Your task to perform on an android device: Open the calendar and show me this week's events? Image 0: 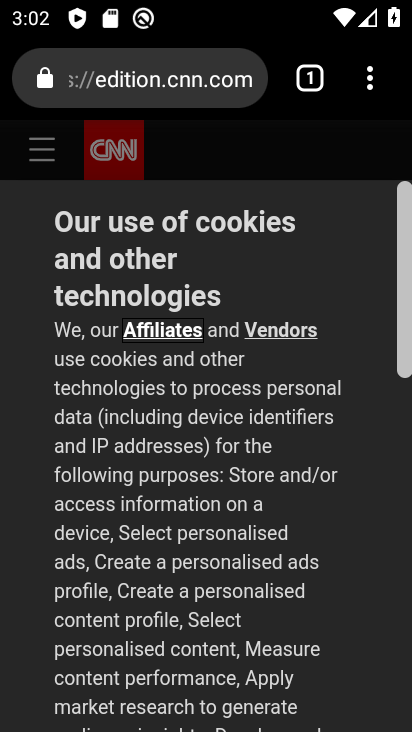
Step 0: press back button
Your task to perform on an android device: Open the calendar and show me this week's events? Image 1: 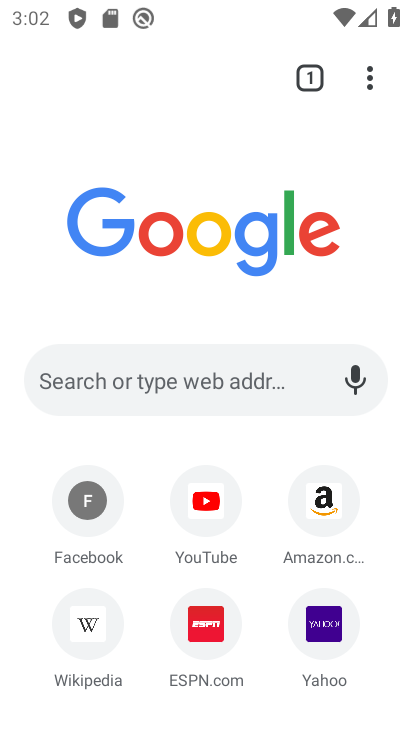
Step 1: press back button
Your task to perform on an android device: Open the calendar and show me this week's events? Image 2: 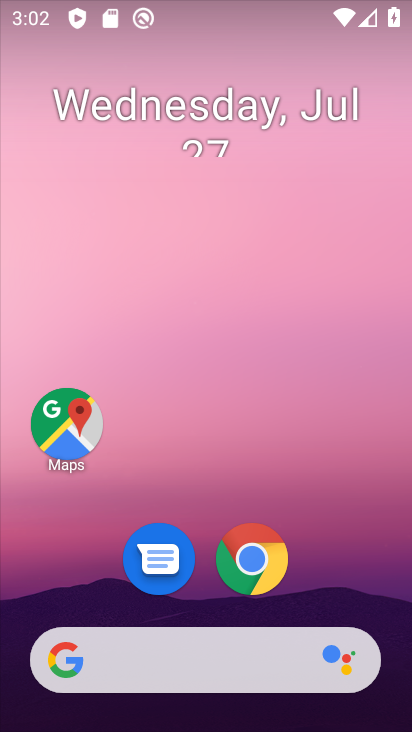
Step 2: drag from (61, 586) to (233, 18)
Your task to perform on an android device: Open the calendar and show me this week's events? Image 3: 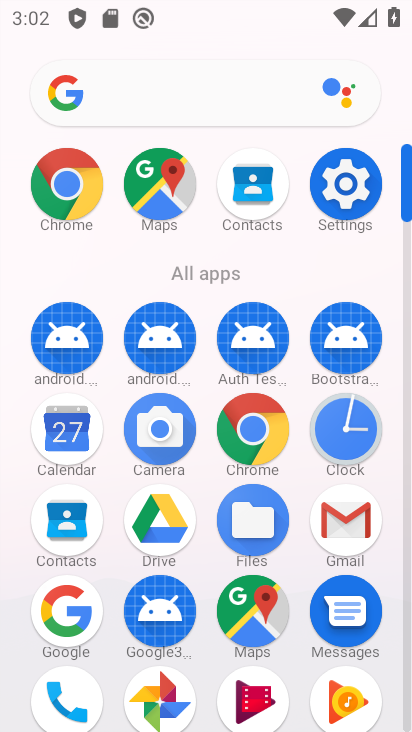
Step 3: click (69, 446)
Your task to perform on an android device: Open the calendar and show me this week's events? Image 4: 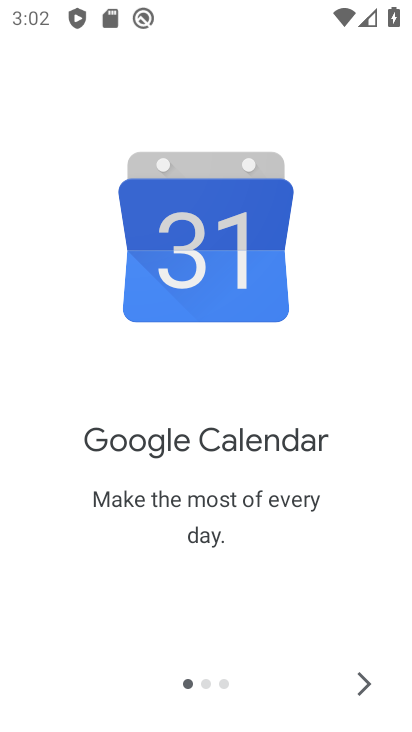
Step 4: click (361, 682)
Your task to perform on an android device: Open the calendar and show me this week's events? Image 5: 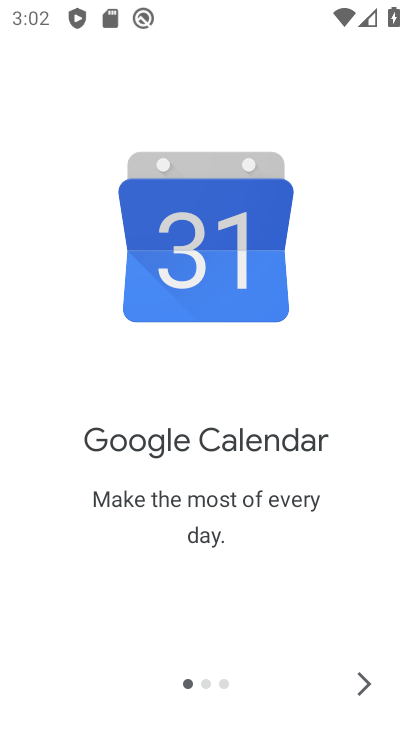
Step 5: click (361, 682)
Your task to perform on an android device: Open the calendar and show me this week's events? Image 6: 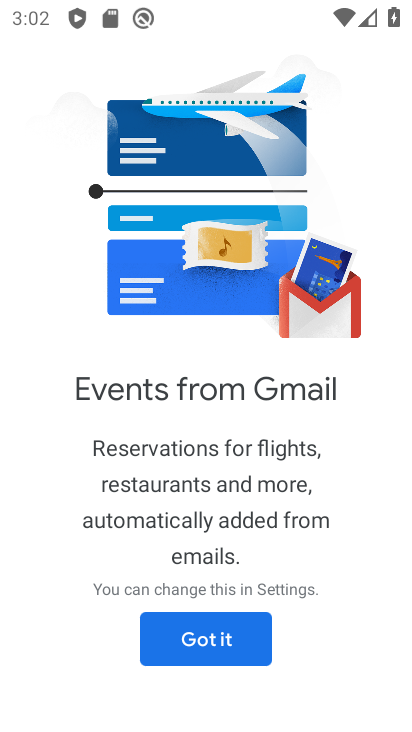
Step 6: click (191, 642)
Your task to perform on an android device: Open the calendar and show me this week's events? Image 7: 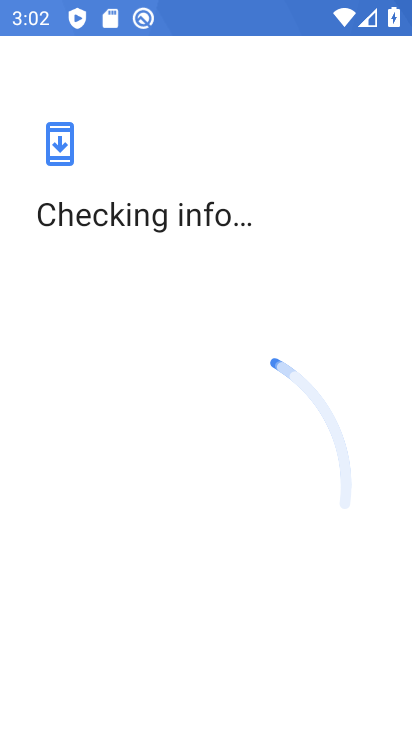
Step 7: click (156, 71)
Your task to perform on an android device: Open the calendar and show me this week's events? Image 8: 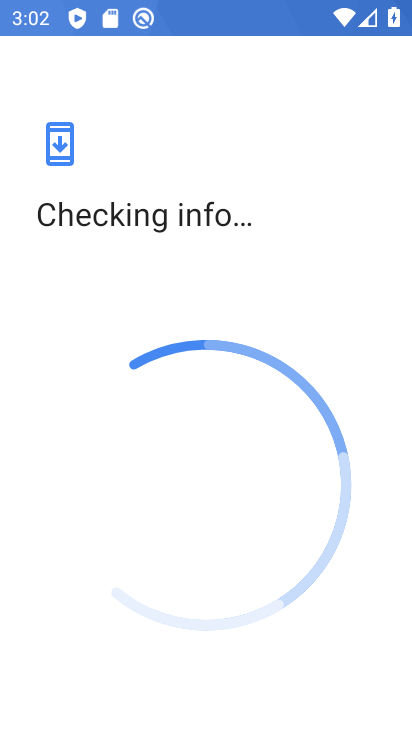
Step 8: press back button
Your task to perform on an android device: Open the calendar and show me this week's events? Image 9: 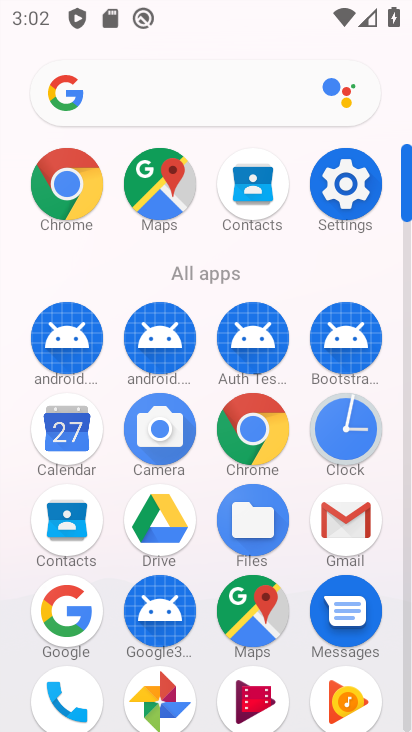
Step 9: click (71, 442)
Your task to perform on an android device: Open the calendar and show me this week's events? Image 10: 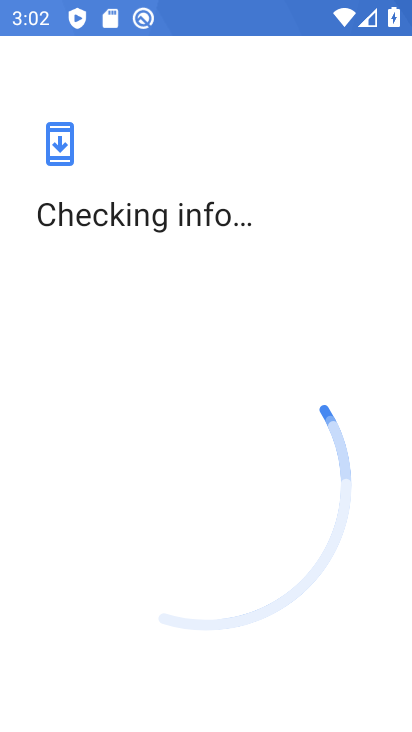
Step 10: press back button
Your task to perform on an android device: Open the calendar and show me this week's events? Image 11: 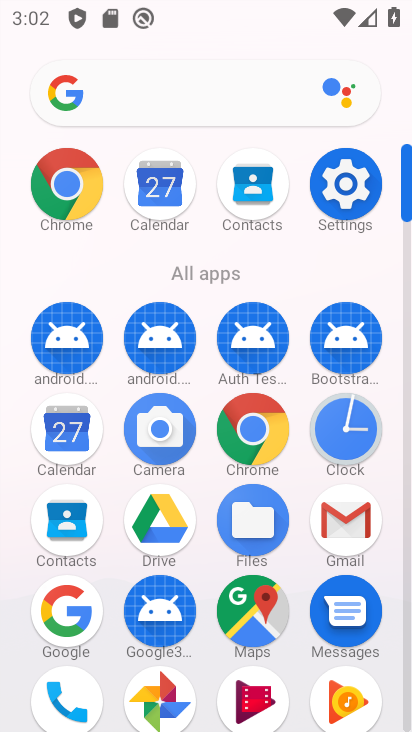
Step 11: click (150, 185)
Your task to perform on an android device: Open the calendar and show me this week's events? Image 12: 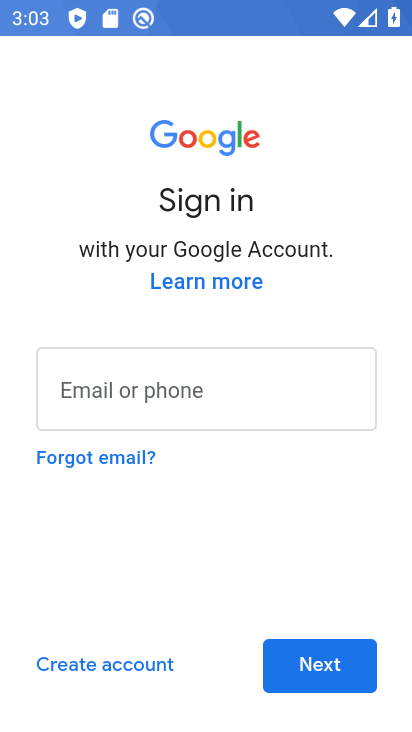
Step 12: press back button
Your task to perform on an android device: Open the calendar and show me this week's events? Image 13: 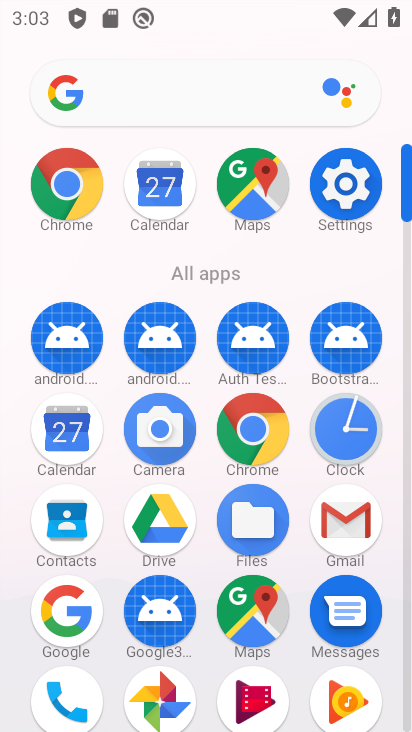
Step 13: click (165, 180)
Your task to perform on an android device: Open the calendar and show me this week's events? Image 14: 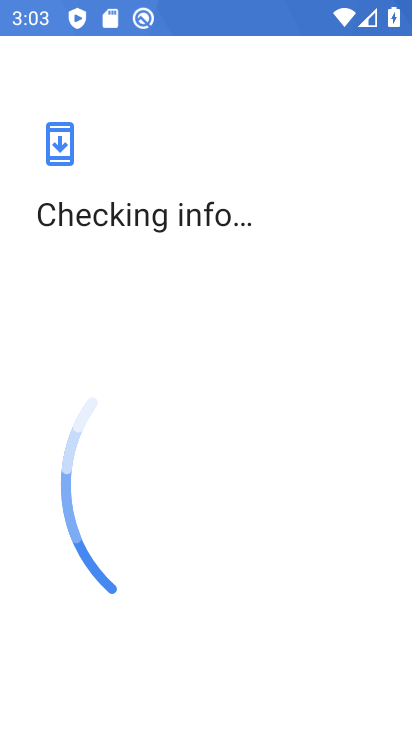
Step 14: press back button
Your task to perform on an android device: Open the calendar and show me this week's events? Image 15: 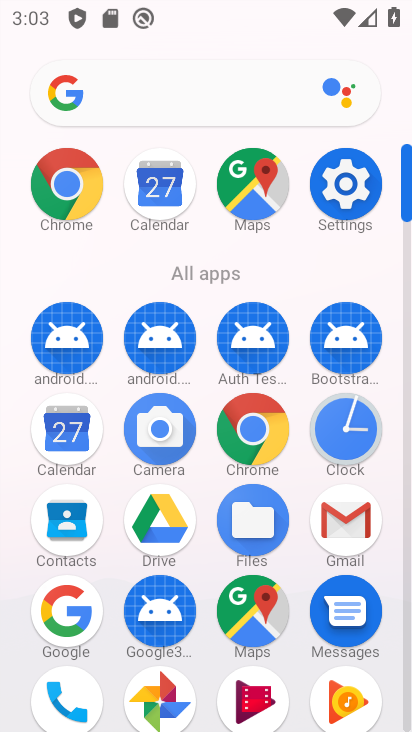
Step 15: click (156, 184)
Your task to perform on an android device: Open the calendar and show me this week's events? Image 16: 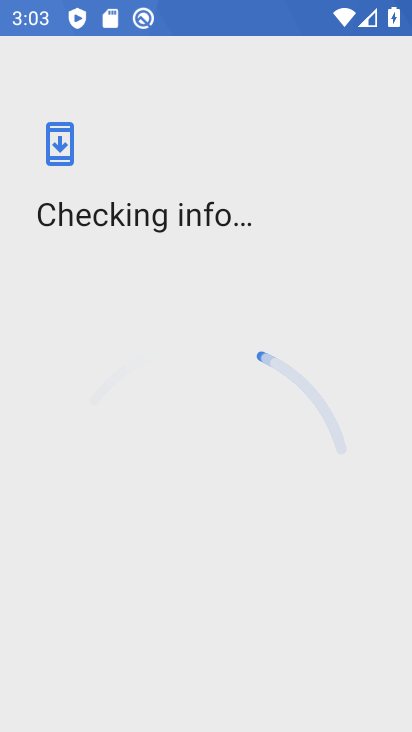
Step 16: press back button
Your task to perform on an android device: Open the calendar and show me this week's events? Image 17: 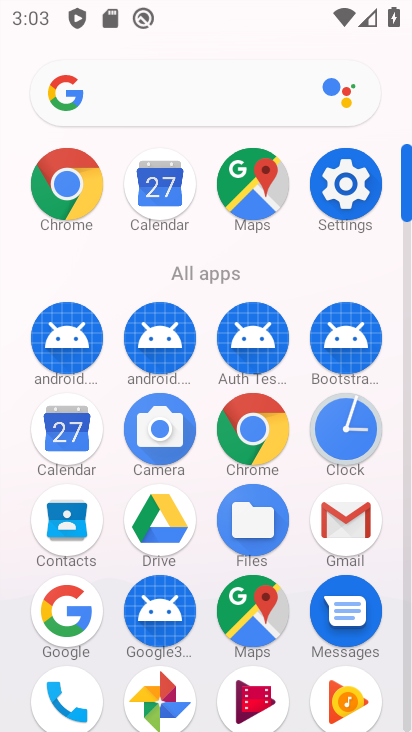
Step 17: click (163, 187)
Your task to perform on an android device: Open the calendar and show me this week's events? Image 18: 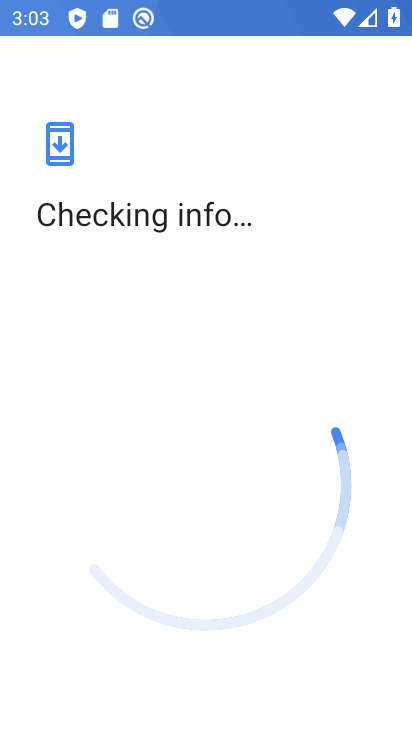
Step 18: press back button
Your task to perform on an android device: Open the calendar and show me this week's events? Image 19: 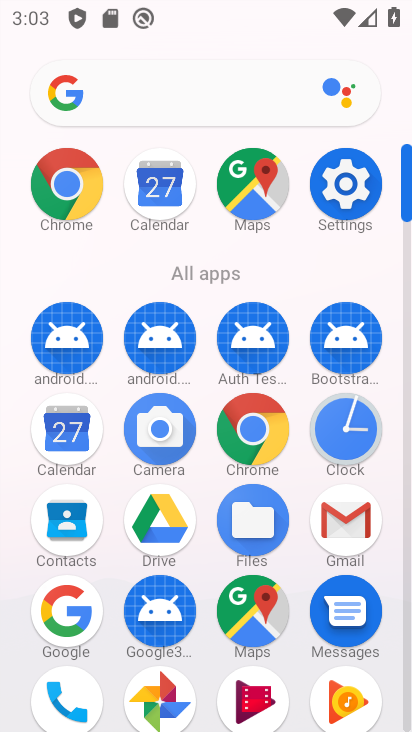
Step 19: click (156, 181)
Your task to perform on an android device: Open the calendar and show me this week's events? Image 20: 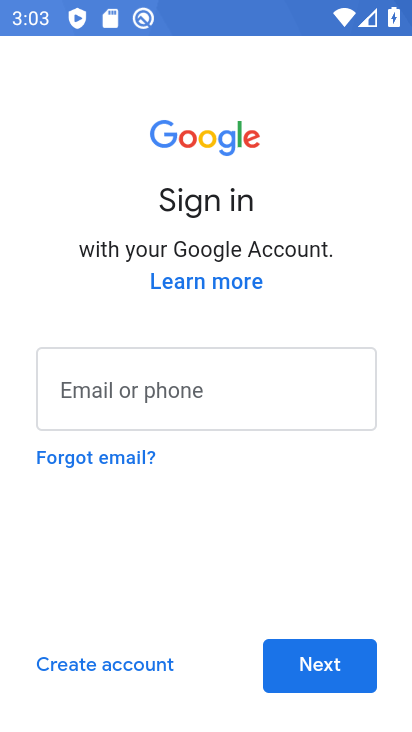
Step 20: task complete